Your task to perform on an android device: Open calendar and show me the second week of next month Image 0: 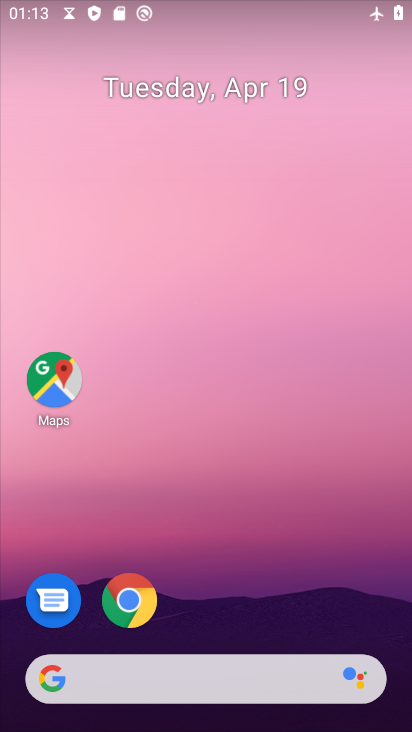
Step 0: drag from (218, 641) to (201, 82)
Your task to perform on an android device: Open calendar and show me the second week of next month Image 1: 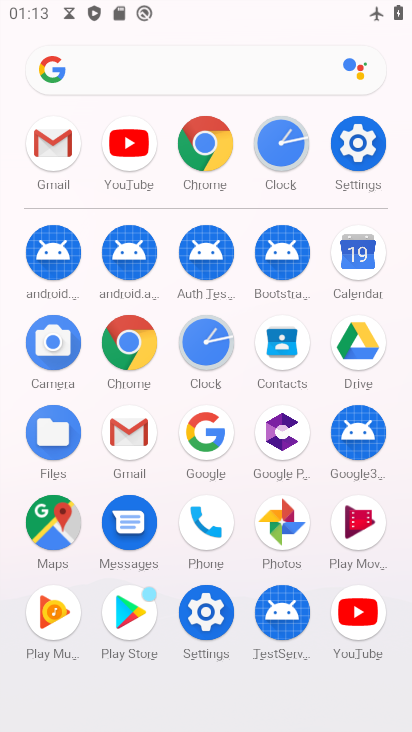
Step 1: click (350, 272)
Your task to perform on an android device: Open calendar and show me the second week of next month Image 2: 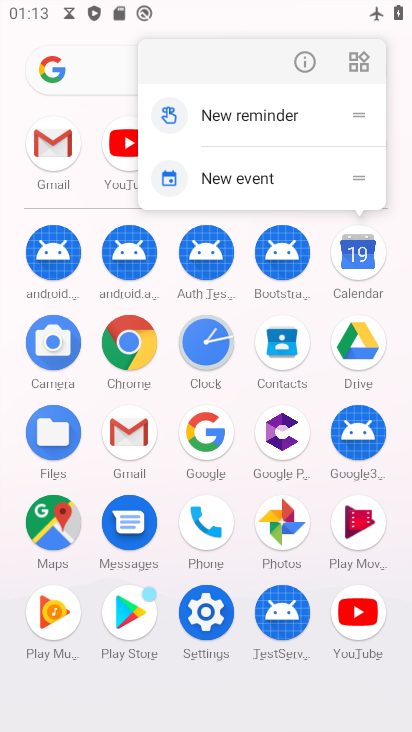
Step 2: click (350, 272)
Your task to perform on an android device: Open calendar and show me the second week of next month Image 3: 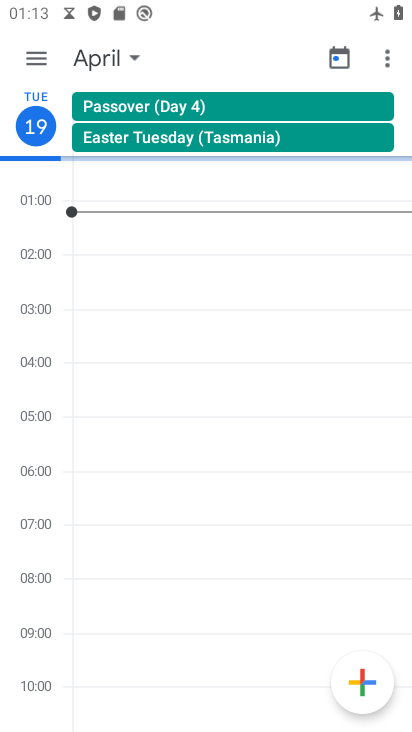
Step 3: click (30, 60)
Your task to perform on an android device: Open calendar and show me the second week of next month Image 4: 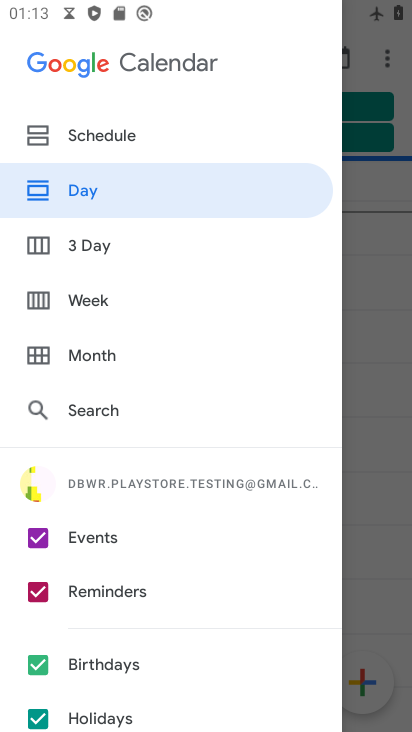
Step 4: click (123, 306)
Your task to perform on an android device: Open calendar and show me the second week of next month Image 5: 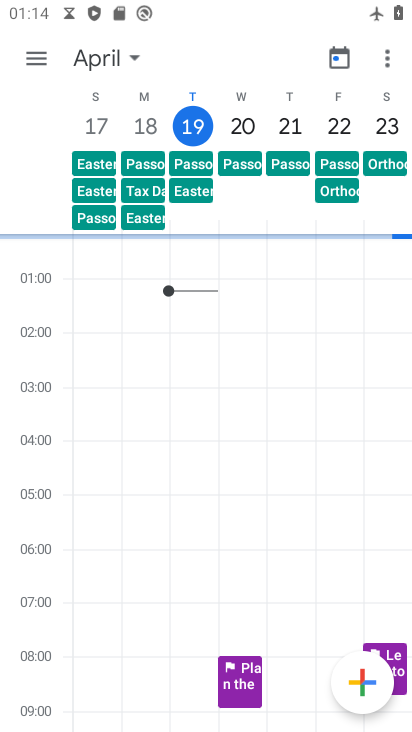
Step 5: task complete